Your task to perform on an android device: Add usb-b to the cart on walmart, then select checkout. Image 0: 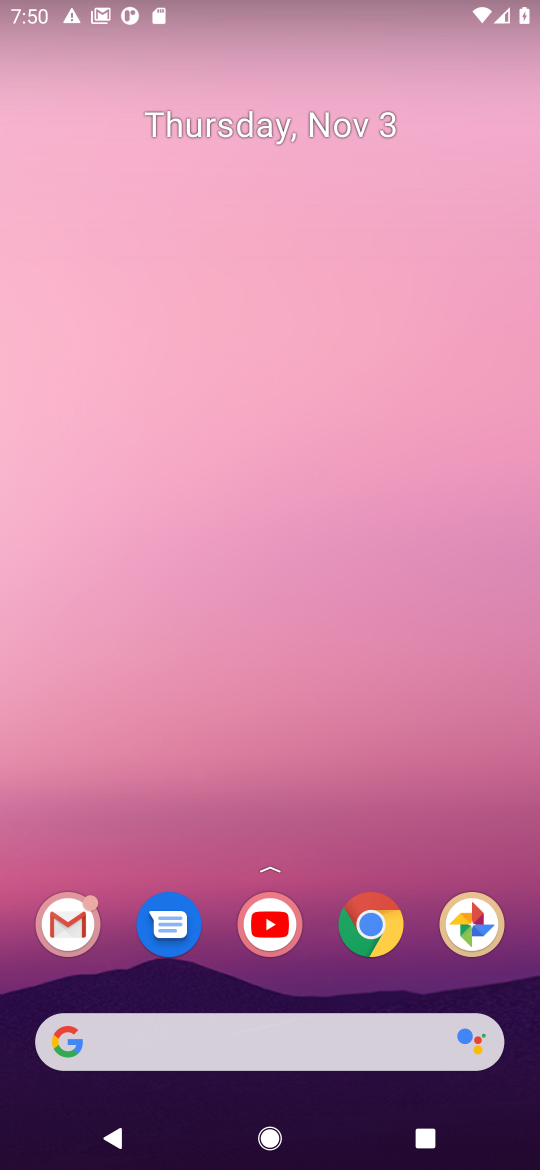
Step 0: click (206, 1035)
Your task to perform on an android device: Add usb-b to the cart on walmart, then select checkout. Image 1: 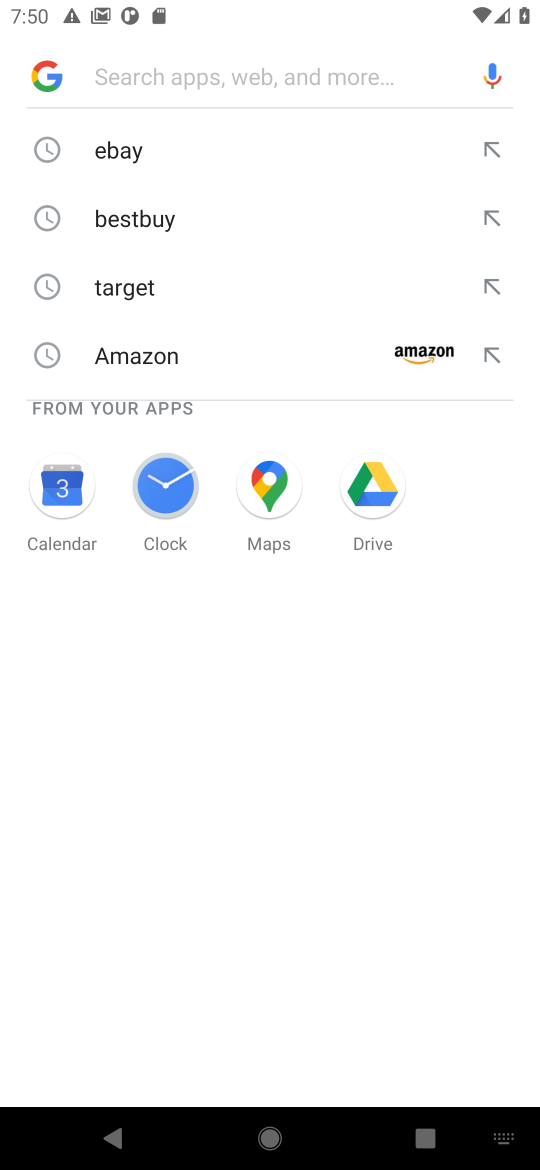
Step 1: type "walmart"
Your task to perform on an android device: Add usb-b to the cart on walmart, then select checkout. Image 2: 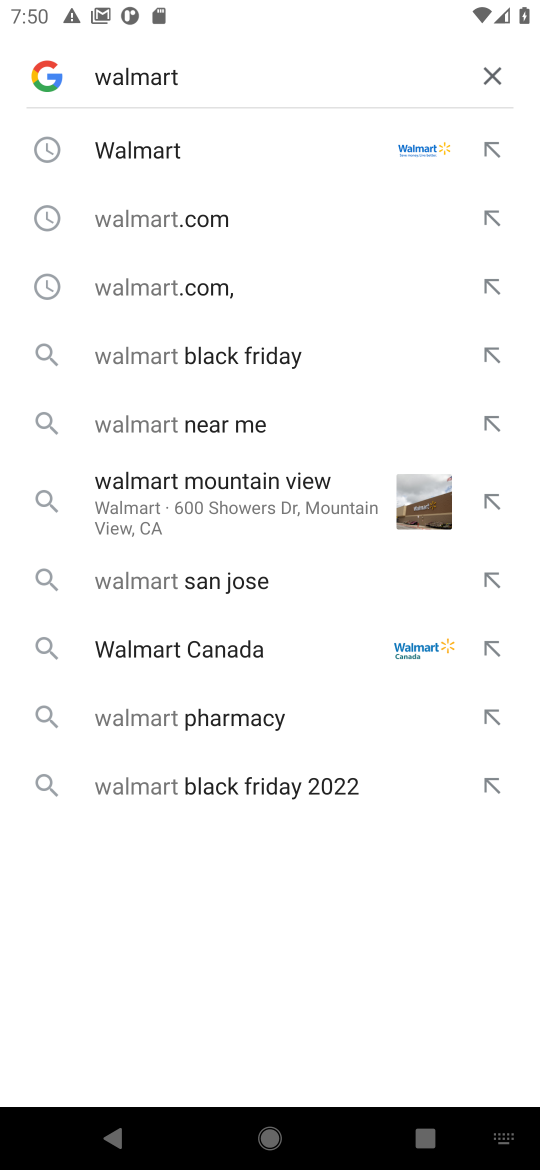
Step 2: click (147, 147)
Your task to perform on an android device: Add usb-b to the cart on walmart, then select checkout. Image 3: 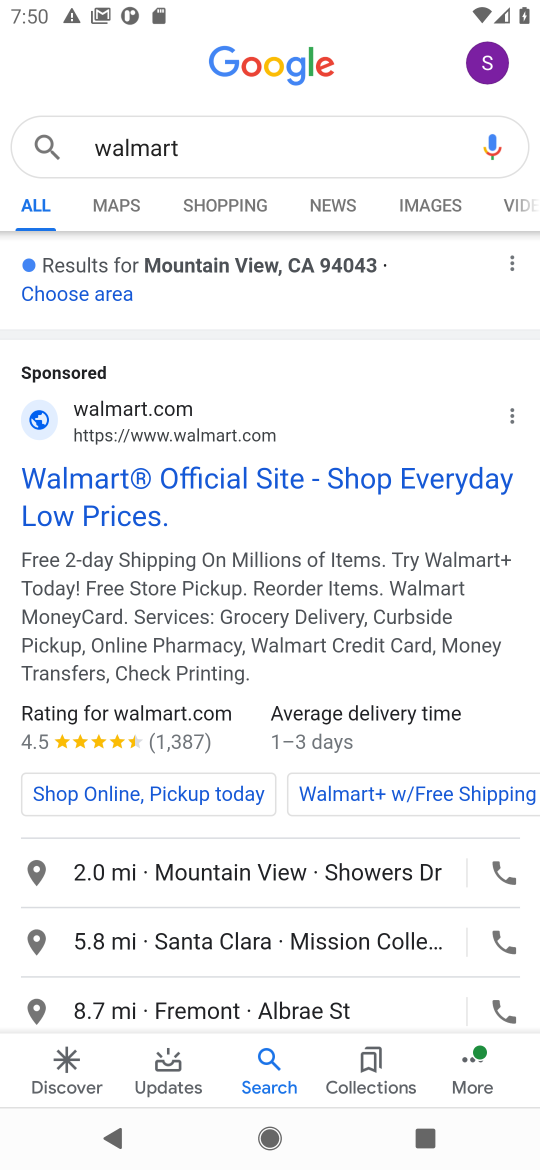
Step 3: click (133, 411)
Your task to perform on an android device: Add usb-b to the cart on walmart, then select checkout. Image 4: 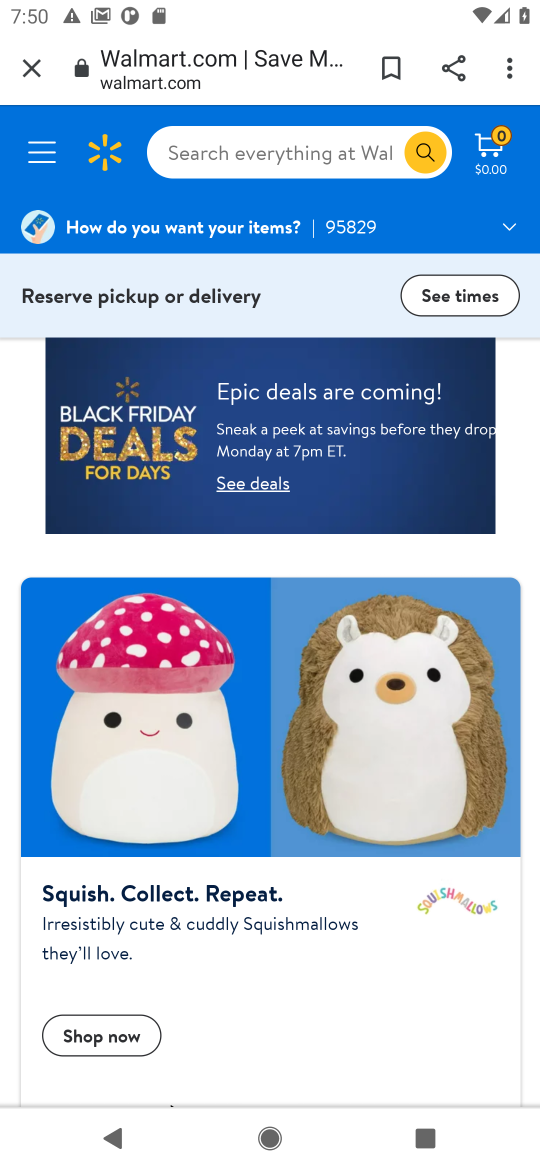
Step 4: drag from (322, 1007) to (303, 750)
Your task to perform on an android device: Add usb-b to the cart on walmart, then select checkout. Image 5: 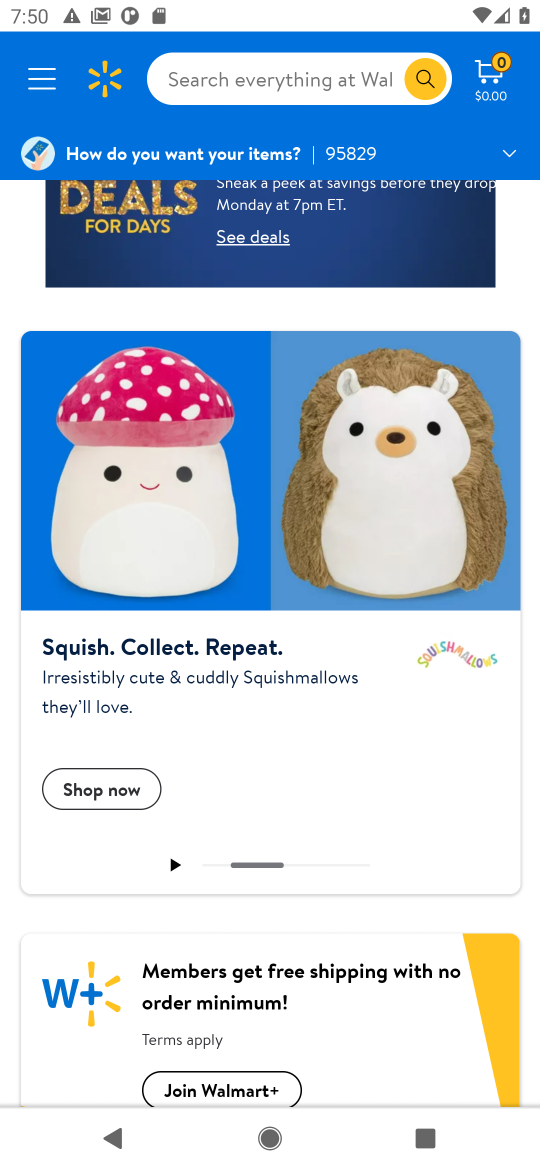
Step 5: click (269, 76)
Your task to perform on an android device: Add usb-b to the cart on walmart, then select checkout. Image 6: 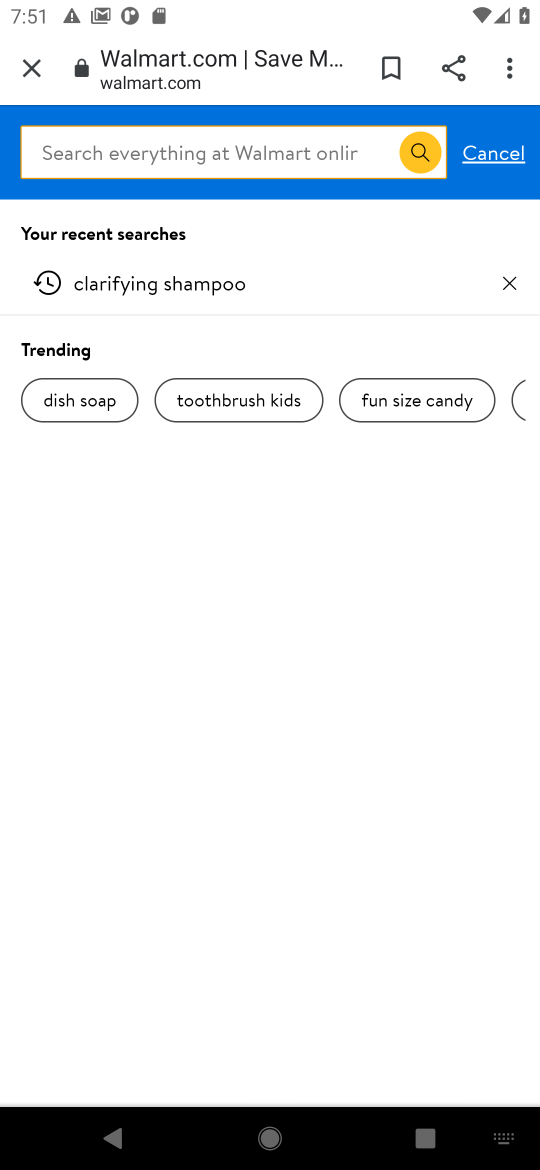
Step 6: type "usb-b"
Your task to perform on an android device: Add usb-b to the cart on walmart, then select checkout. Image 7: 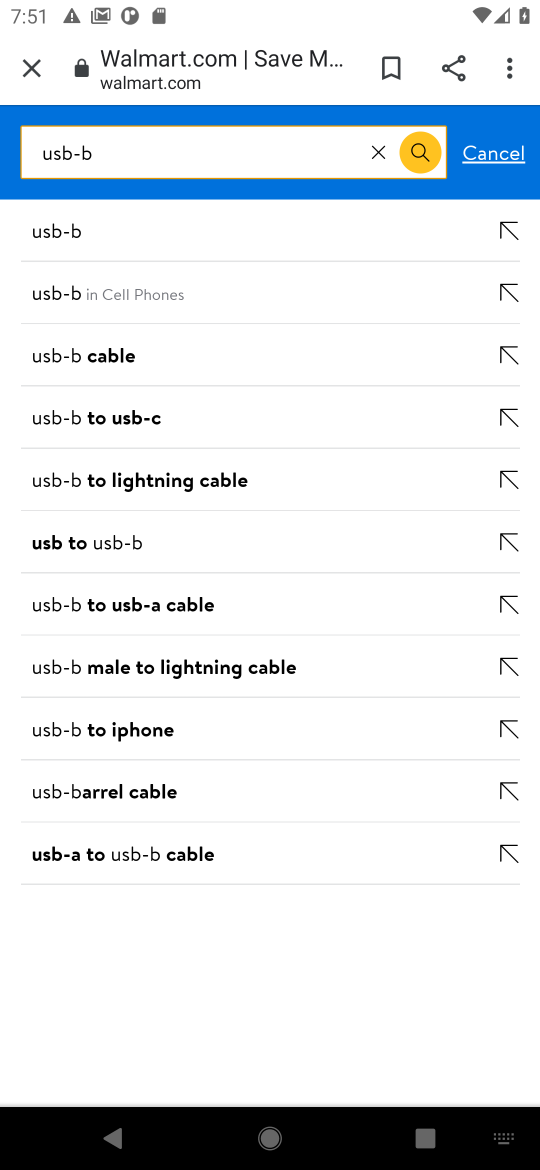
Step 7: click (97, 220)
Your task to perform on an android device: Add usb-b to the cart on walmart, then select checkout. Image 8: 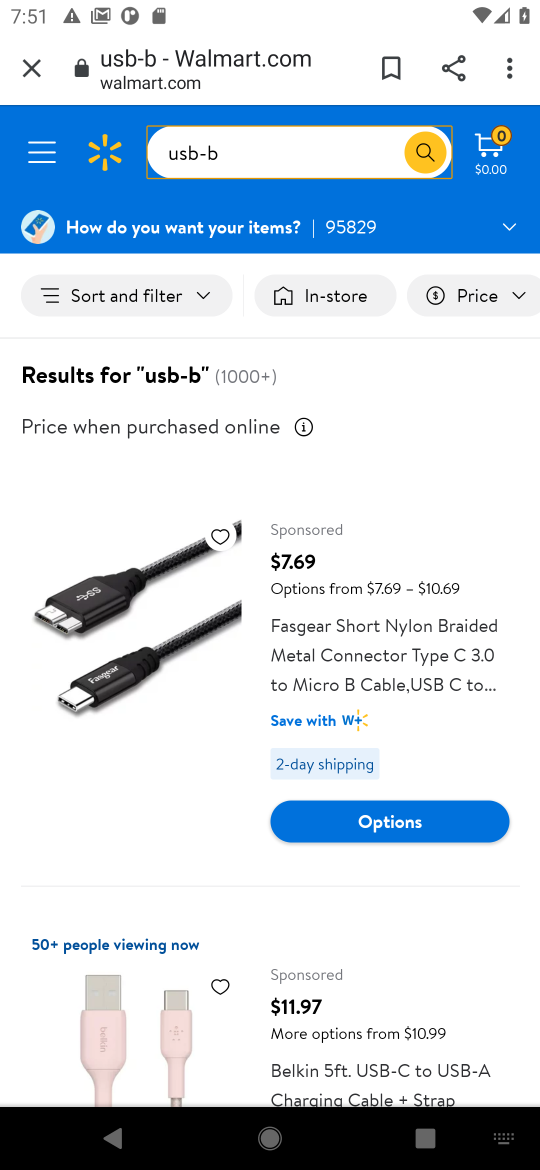
Step 8: click (366, 813)
Your task to perform on an android device: Add usb-b to the cart on walmart, then select checkout. Image 9: 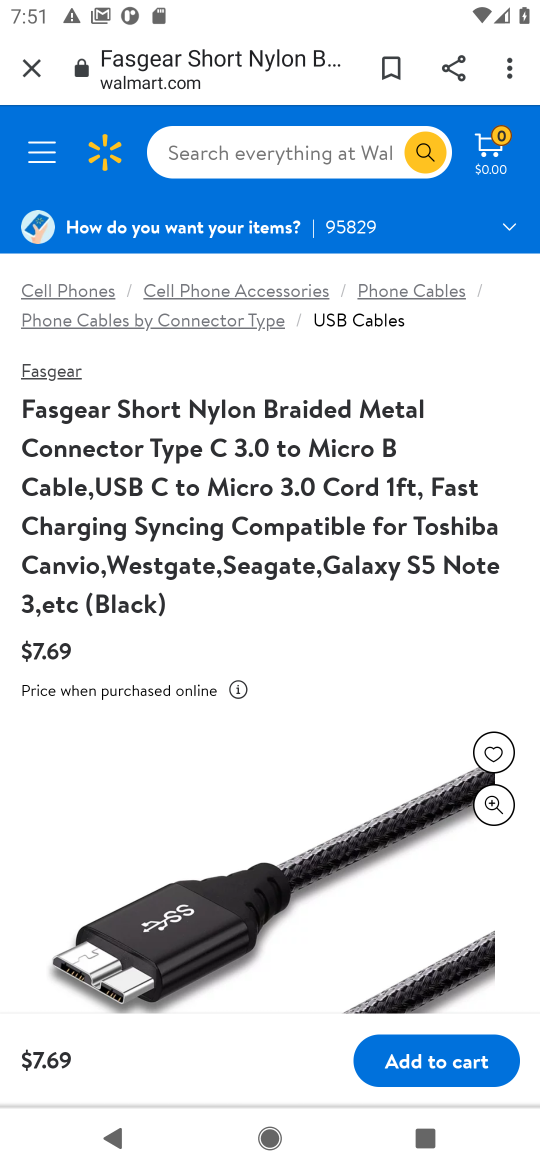
Step 9: click (436, 1057)
Your task to perform on an android device: Add usb-b to the cart on walmart, then select checkout. Image 10: 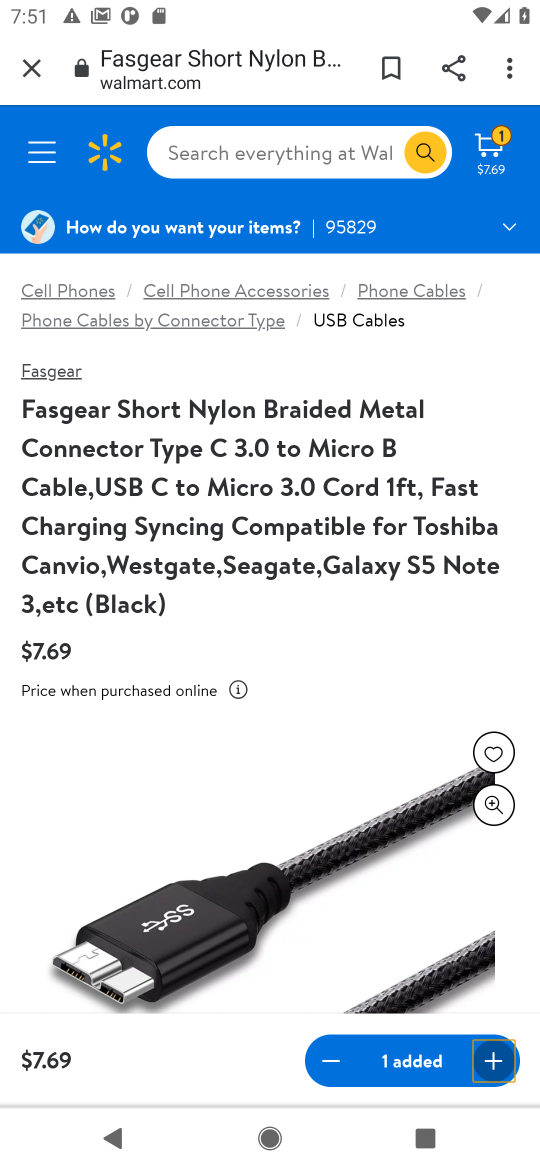
Step 10: click (494, 139)
Your task to perform on an android device: Add usb-b to the cart on walmart, then select checkout. Image 11: 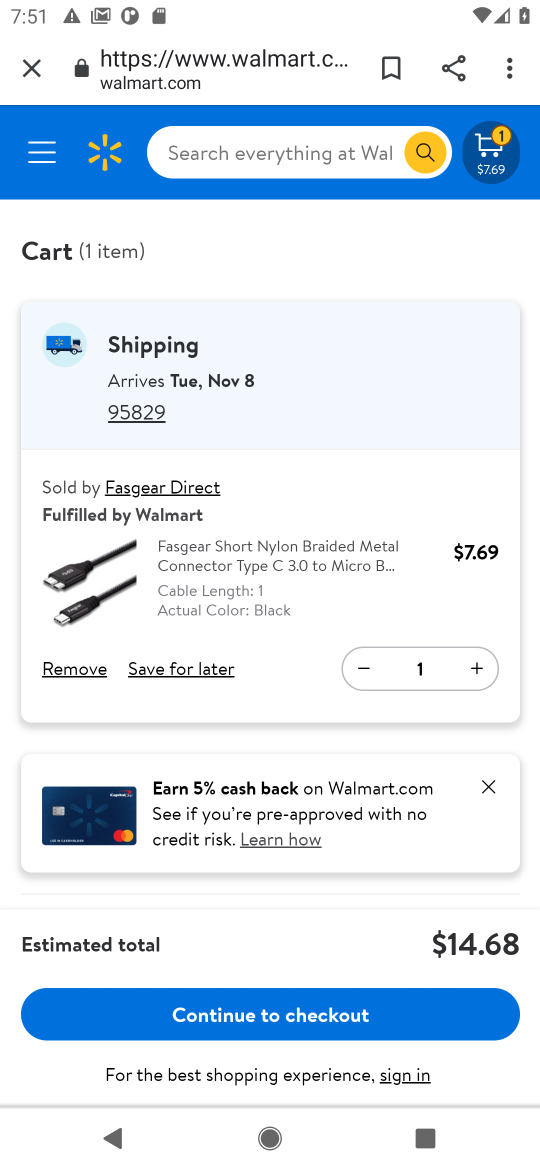
Step 11: click (263, 1024)
Your task to perform on an android device: Add usb-b to the cart on walmart, then select checkout. Image 12: 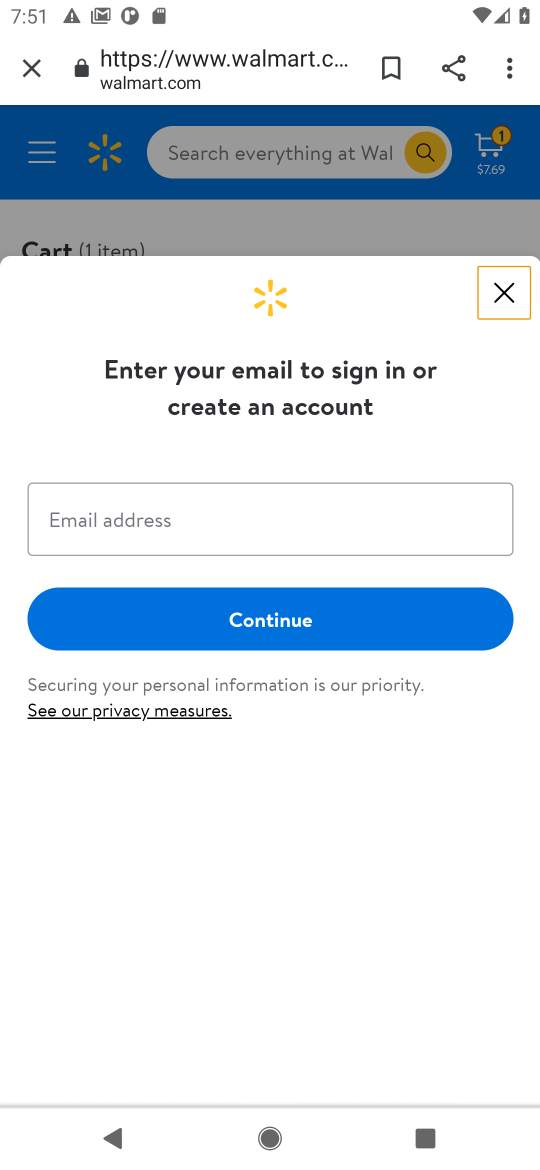
Step 12: task complete